Your task to perform on an android device: Open Youtube and go to the subscriptions tab Image 0: 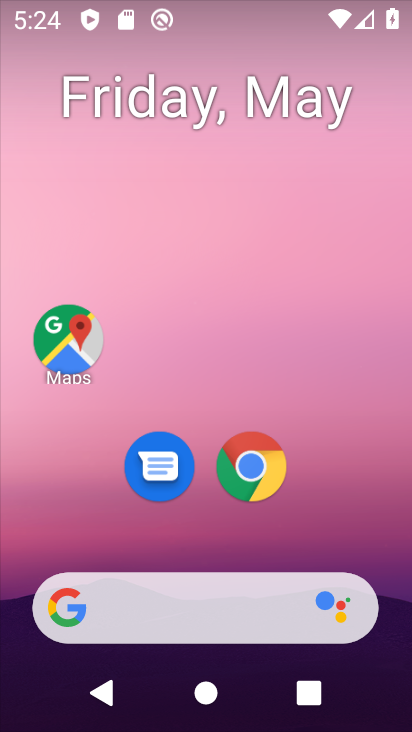
Step 0: drag from (356, 495) to (250, 33)
Your task to perform on an android device: Open Youtube and go to the subscriptions tab Image 1: 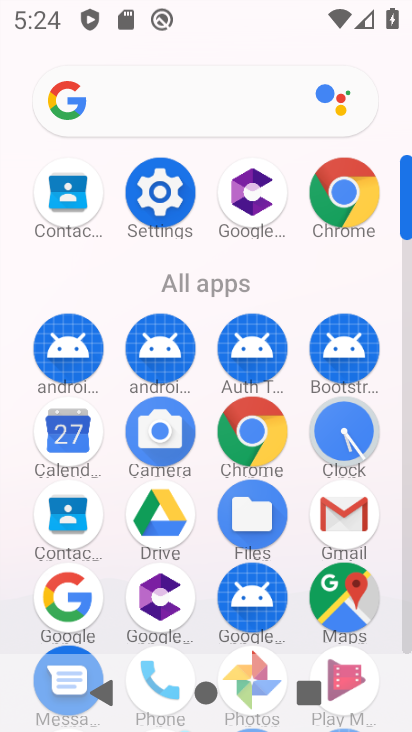
Step 1: drag from (5, 586) to (13, 214)
Your task to perform on an android device: Open Youtube and go to the subscriptions tab Image 2: 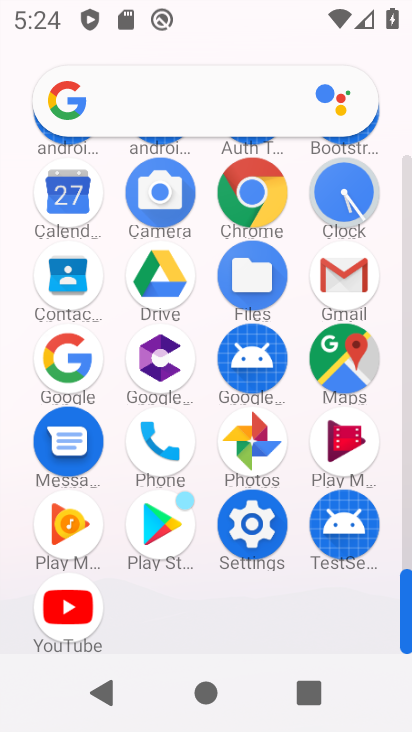
Step 2: click (60, 608)
Your task to perform on an android device: Open Youtube and go to the subscriptions tab Image 3: 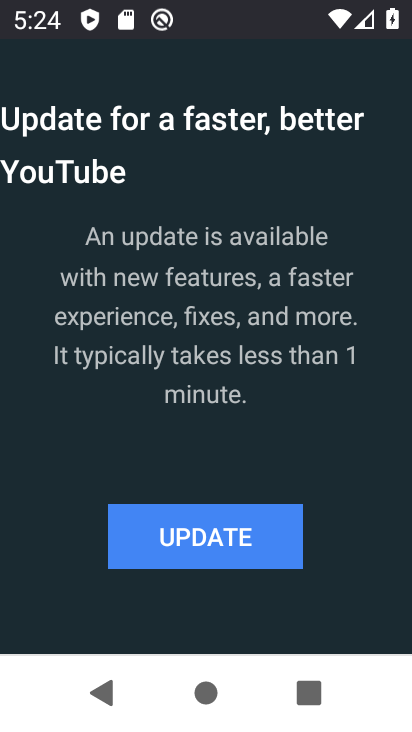
Step 3: click (214, 520)
Your task to perform on an android device: Open Youtube and go to the subscriptions tab Image 4: 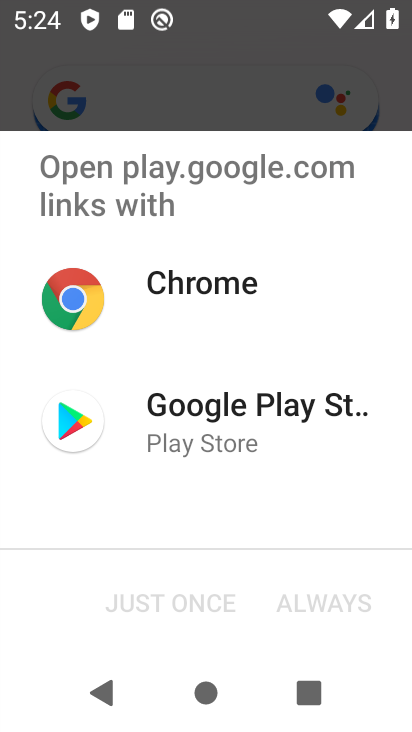
Step 4: click (220, 433)
Your task to perform on an android device: Open Youtube and go to the subscriptions tab Image 5: 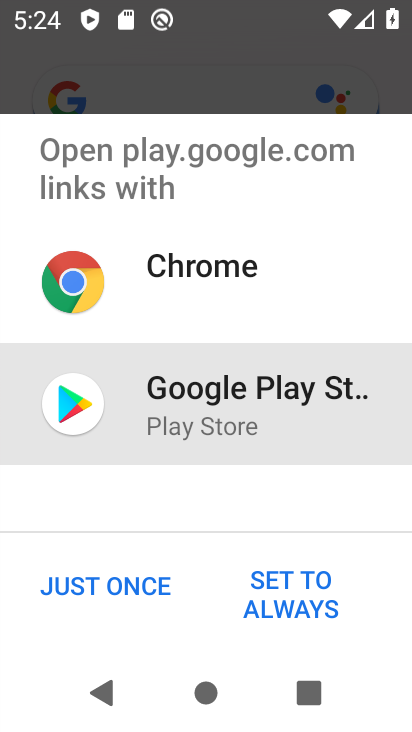
Step 5: click (116, 573)
Your task to perform on an android device: Open Youtube and go to the subscriptions tab Image 6: 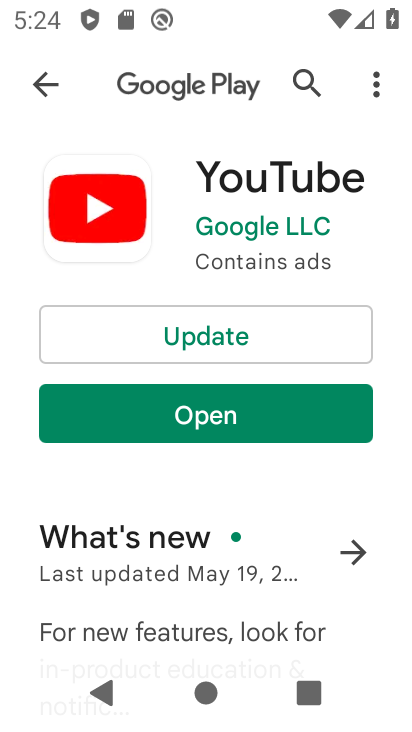
Step 6: click (220, 317)
Your task to perform on an android device: Open Youtube and go to the subscriptions tab Image 7: 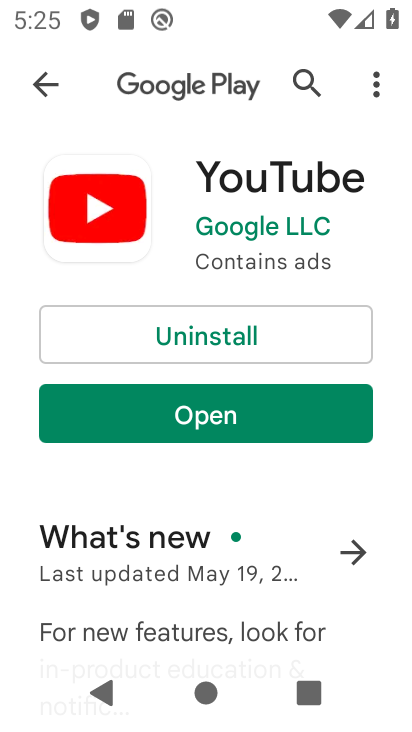
Step 7: click (174, 405)
Your task to perform on an android device: Open Youtube and go to the subscriptions tab Image 8: 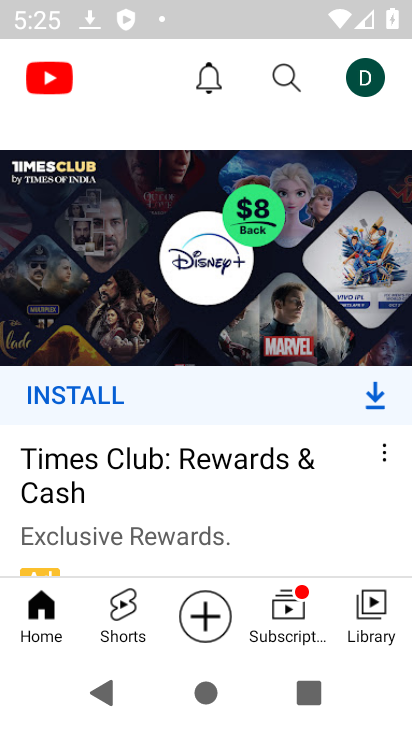
Step 8: click (272, 628)
Your task to perform on an android device: Open Youtube and go to the subscriptions tab Image 9: 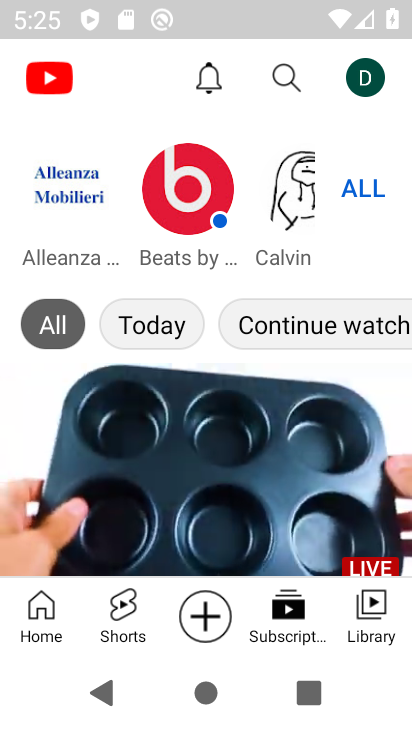
Step 9: task complete